Your task to perform on an android device: Go to display settings Image 0: 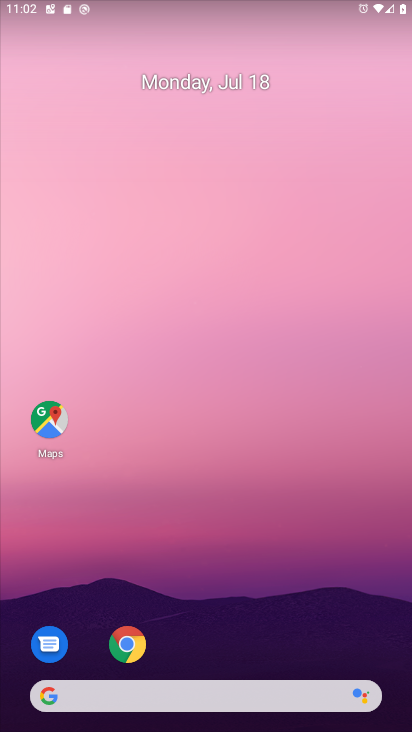
Step 0: drag from (276, 633) to (270, 105)
Your task to perform on an android device: Go to display settings Image 1: 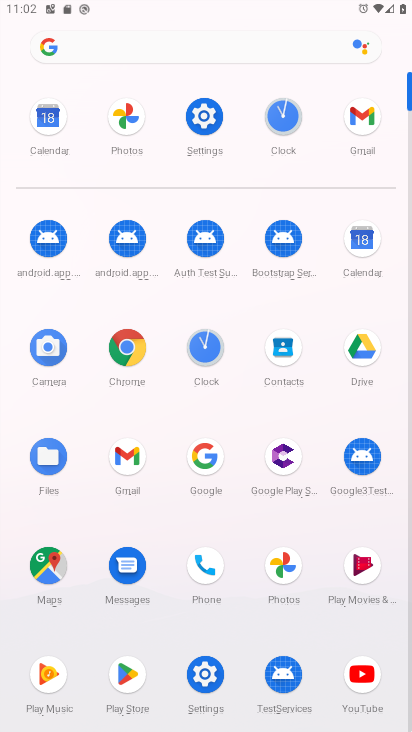
Step 1: click (216, 141)
Your task to perform on an android device: Go to display settings Image 2: 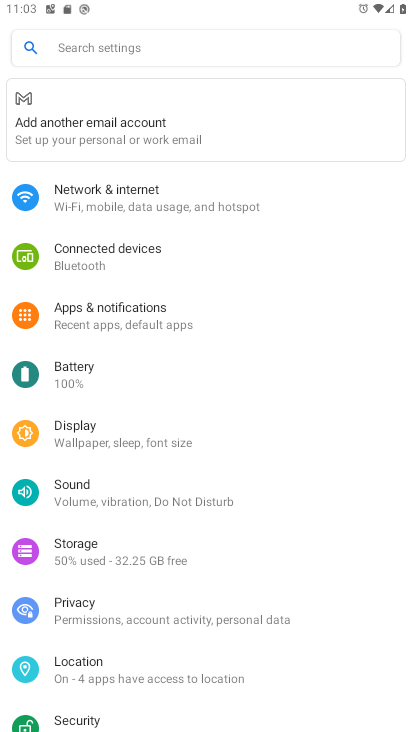
Step 2: click (145, 442)
Your task to perform on an android device: Go to display settings Image 3: 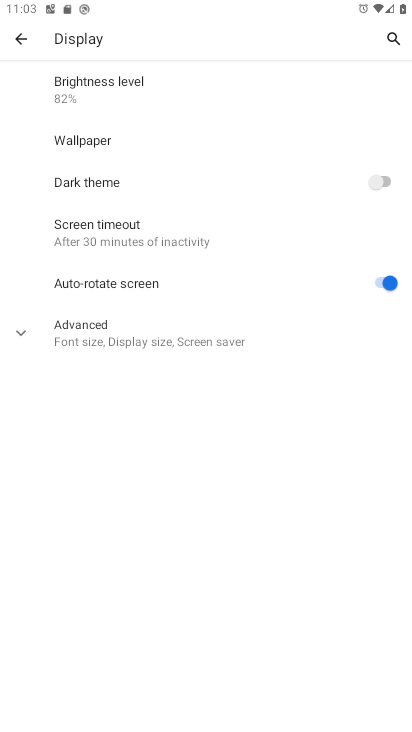
Step 3: task complete